Your task to perform on an android device: delete the emails in spam in the gmail app Image 0: 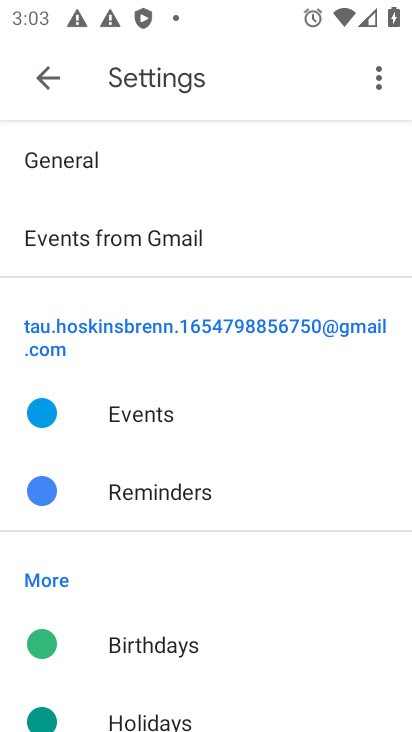
Step 0: press home button
Your task to perform on an android device: delete the emails in spam in the gmail app Image 1: 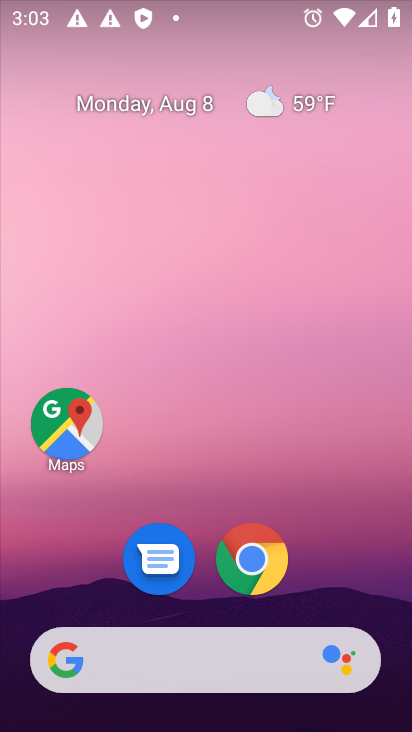
Step 1: drag from (205, 665) to (345, 114)
Your task to perform on an android device: delete the emails in spam in the gmail app Image 2: 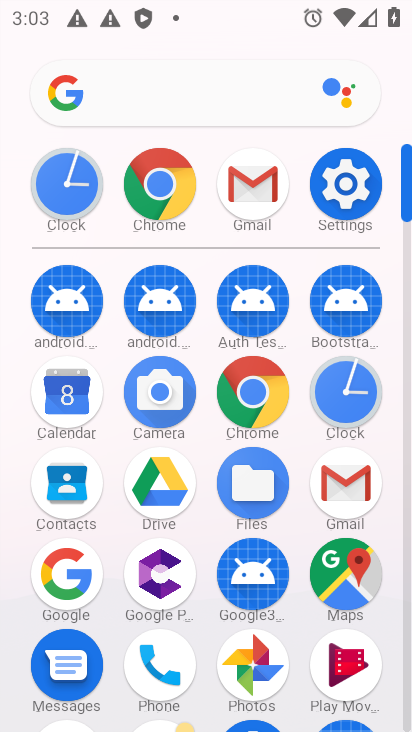
Step 2: click (255, 184)
Your task to perform on an android device: delete the emails in spam in the gmail app Image 3: 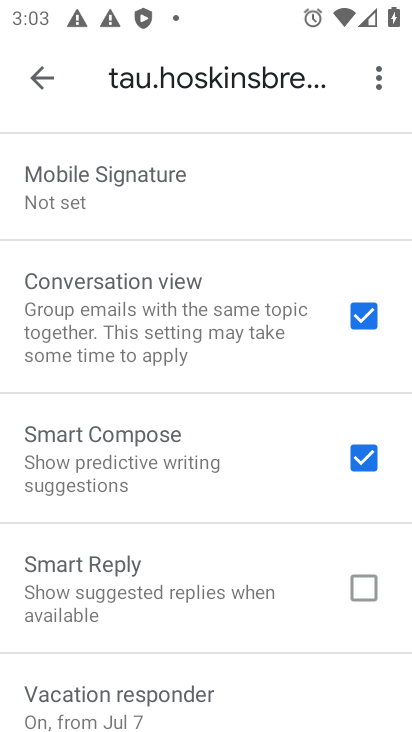
Step 3: press back button
Your task to perform on an android device: delete the emails in spam in the gmail app Image 4: 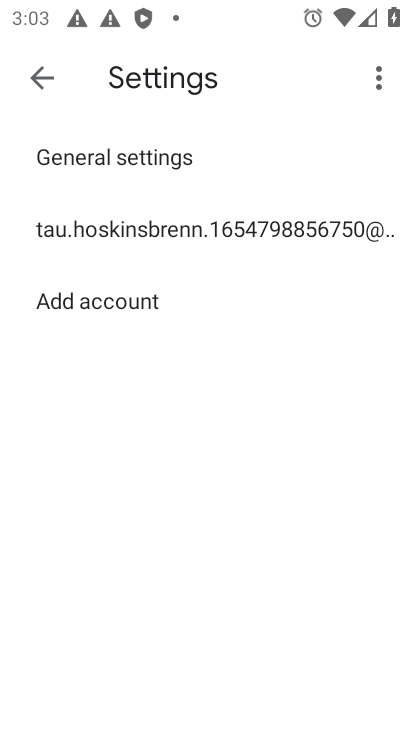
Step 4: press back button
Your task to perform on an android device: delete the emails in spam in the gmail app Image 5: 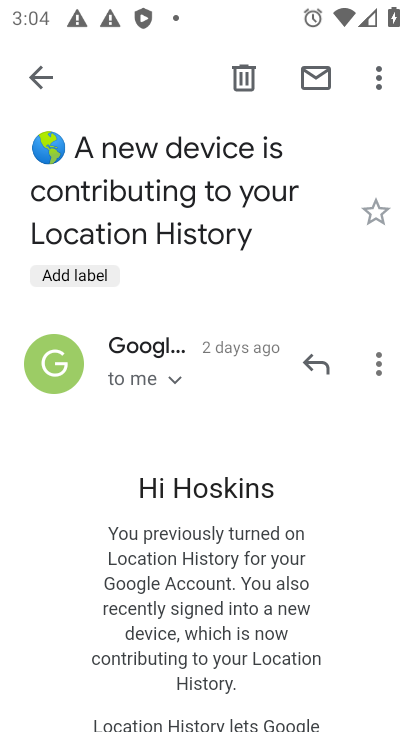
Step 5: press back button
Your task to perform on an android device: delete the emails in spam in the gmail app Image 6: 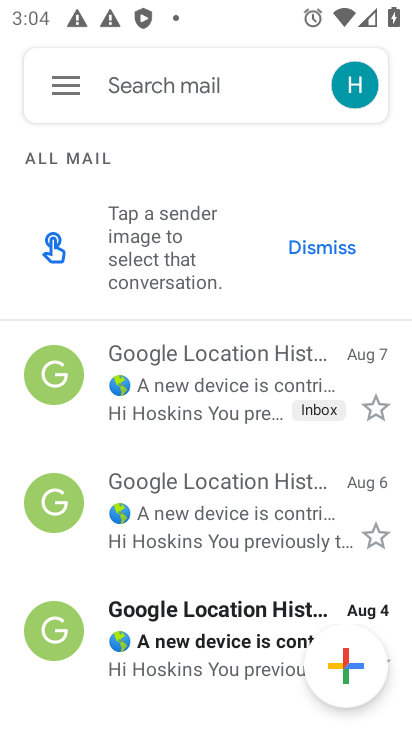
Step 6: click (72, 94)
Your task to perform on an android device: delete the emails in spam in the gmail app Image 7: 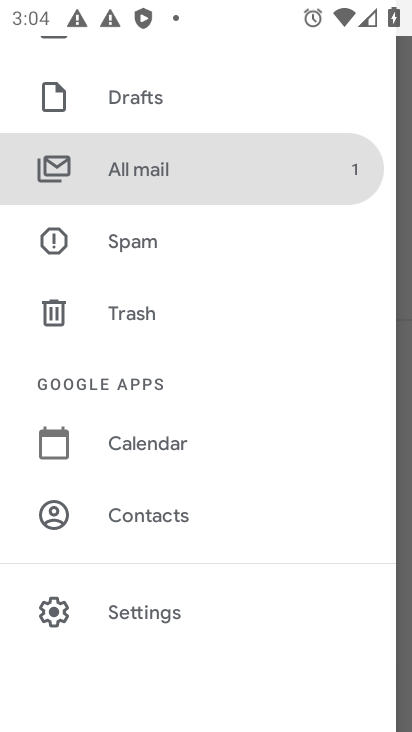
Step 7: click (140, 238)
Your task to perform on an android device: delete the emails in spam in the gmail app Image 8: 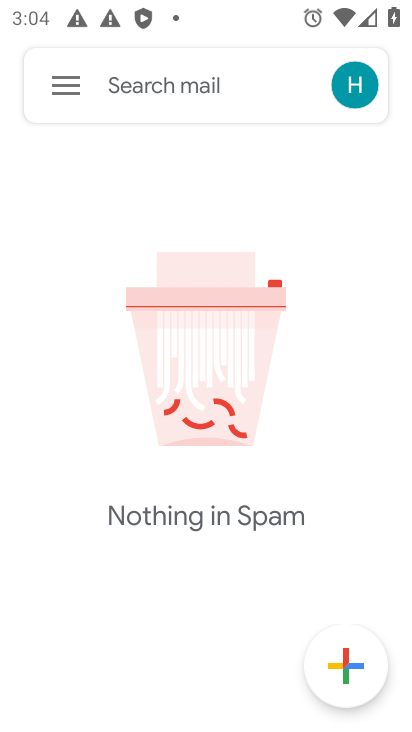
Step 8: task complete